Your task to perform on an android device: Go to Maps Image 0: 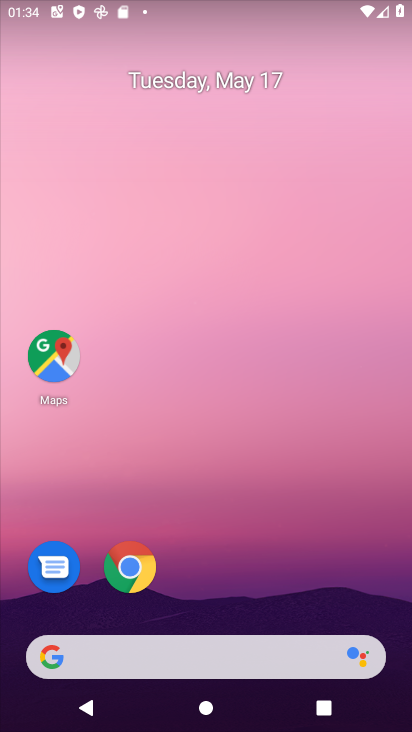
Step 0: click (49, 353)
Your task to perform on an android device: Go to Maps Image 1: 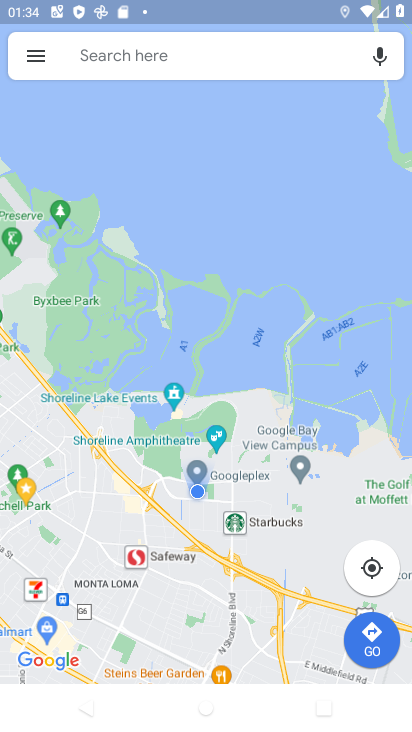
Step 1: task complete